Your task to perform on an android device: Open accessibility settings Image 0: 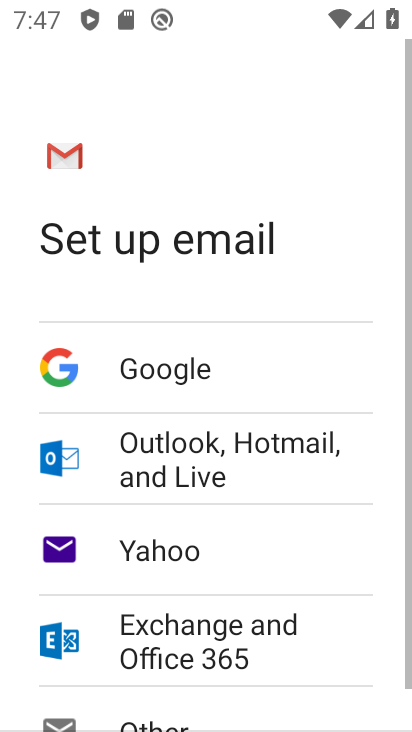
Step 0: press back button
Your task to perform on an android device: Open accessibility settings Image 1: 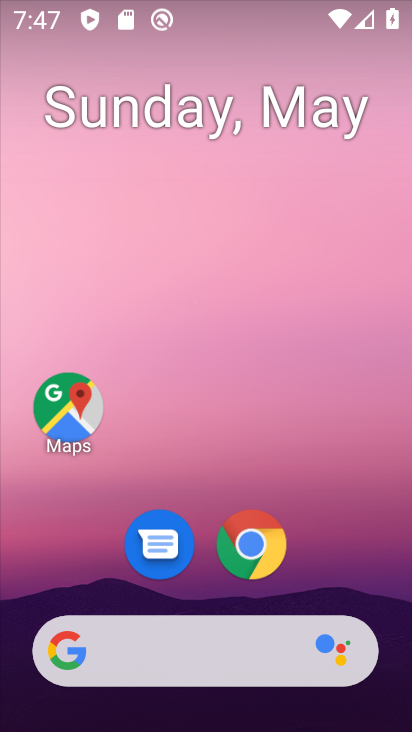
Step 1: drag from (304, 312) to (262, 8)
Your task to perform on an android device: Open accessibility settings Image 2: 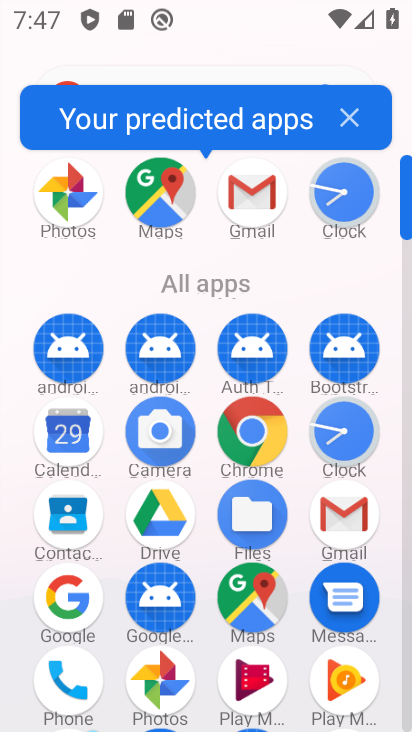
Step 2: drag from (10, 571) to (27, 241)
Your task to perform on an android device: Open accessibility settings Image 3: 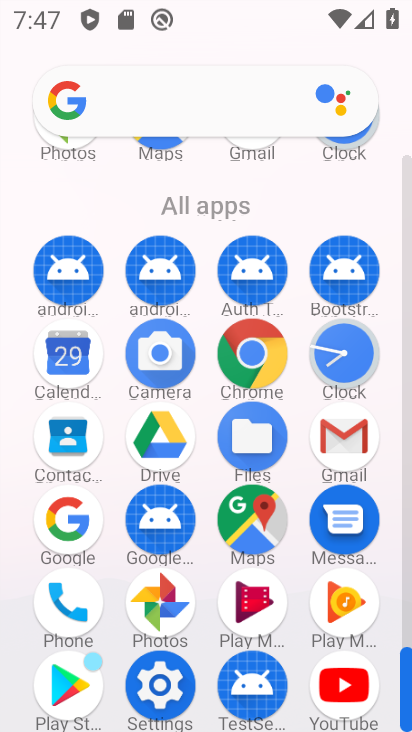
Step 3: click (161, 684)
Your task to perform on an android device: Open accessibility settings Image 4: 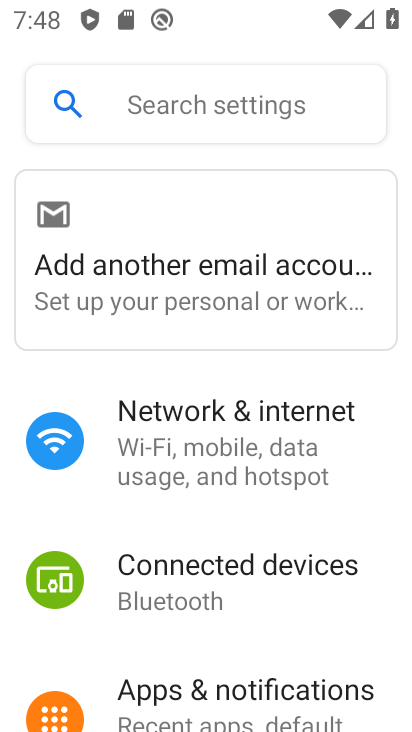
Step 4: drag from (251, 678) to (264, 152)
Your task to perform on an android device: Open accessibility settings Image 5: 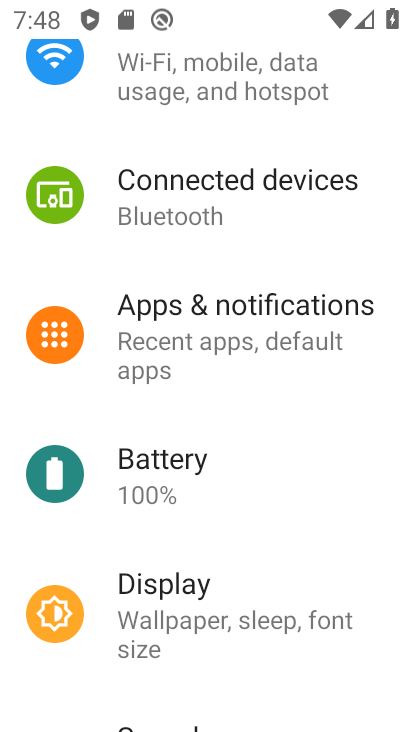
Step 5: drag from (273, 593) to (281, 180)
Your task to perform on an android device: Open accessibility settings Image 6: 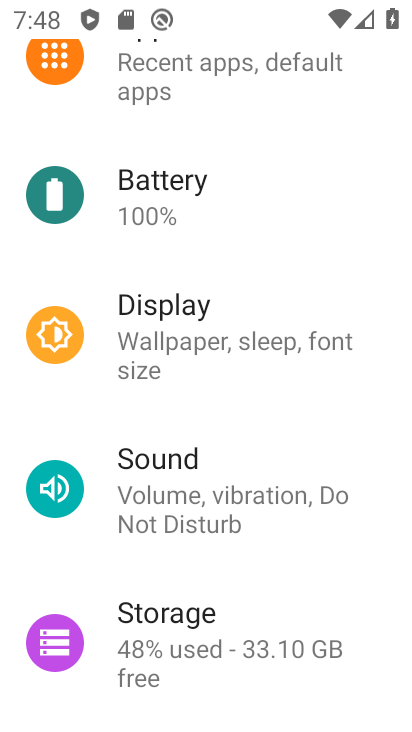
Step 6: drag from (271, 593) to (272, 127)
Your task to perform on an android device: Open accessibility settings Image 7: 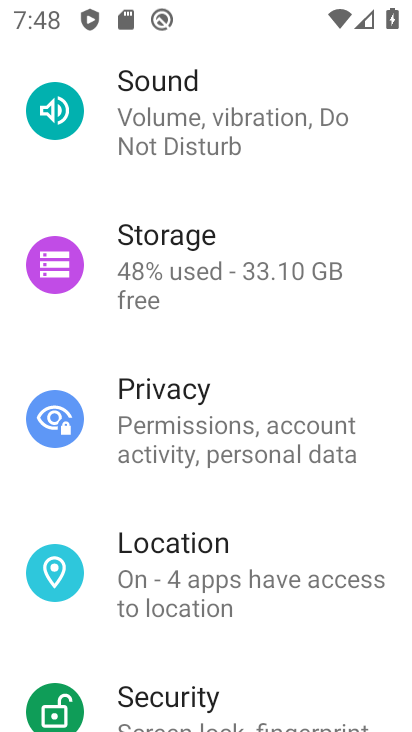
Step 7: drag from (264, 487) to (273, 138)
Your task to perform on an android device: Open accessibility settings Image 8: 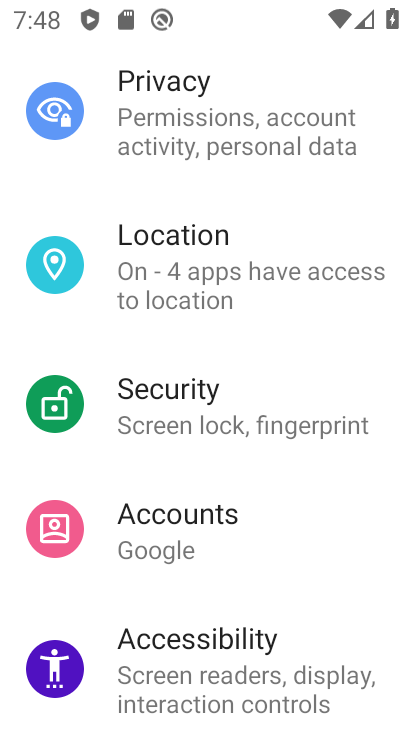
Step 8: click (185, 667)
Your task to perform on an android device: Open accessibility settings Image 9: 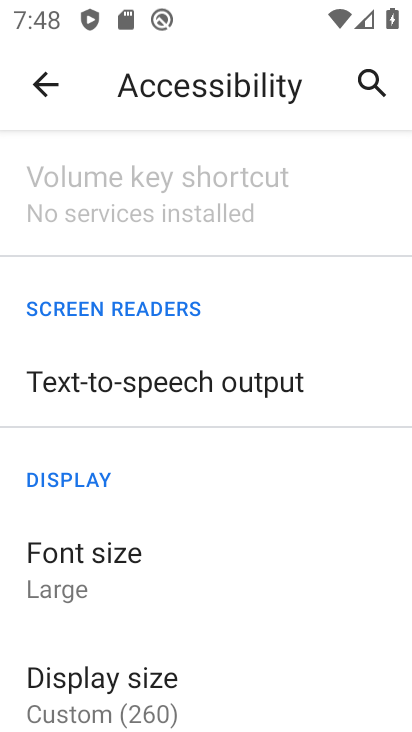
Step 9: task complete